Your task to perform on an android device: Show me recent news Image 0: 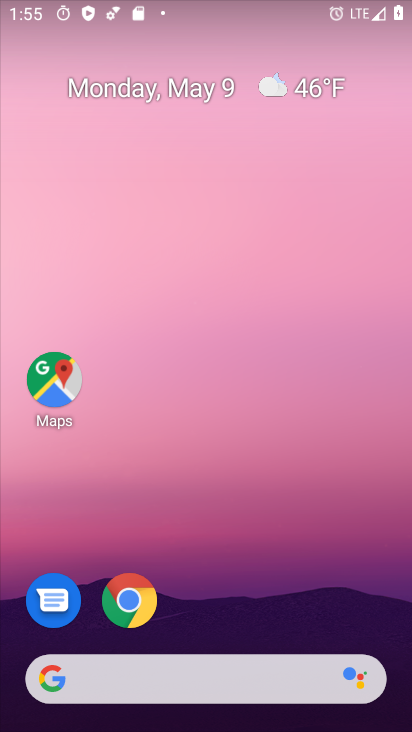
Step 0: drag from (10, 229) to (353, 254)
Your task to perform on an android device: Show me recent news Image 1: 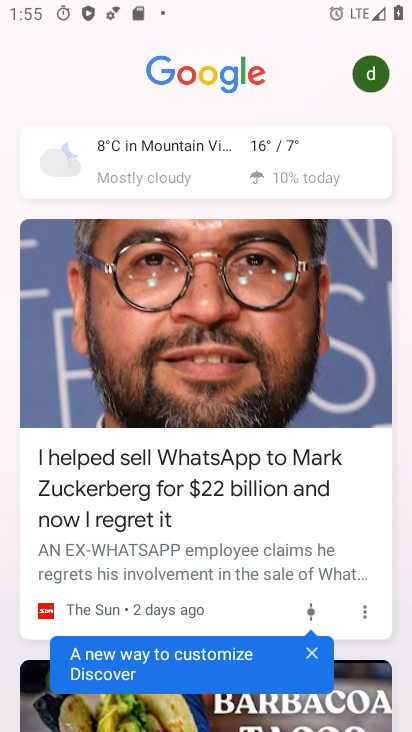
Step 1: drag from (203, 599) to (246, 150)
Your task to perform on an android device: Show me recent news Image 2: 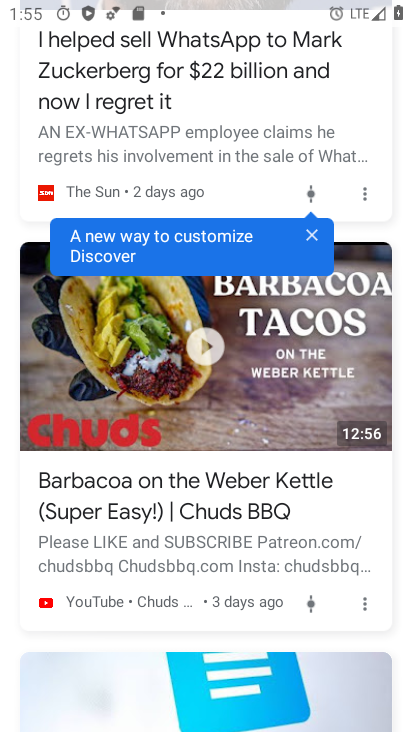
Step 2: drag from (142, 670) to (339, 55)
Your task to perform on an android device: Show me recent news Image 3: 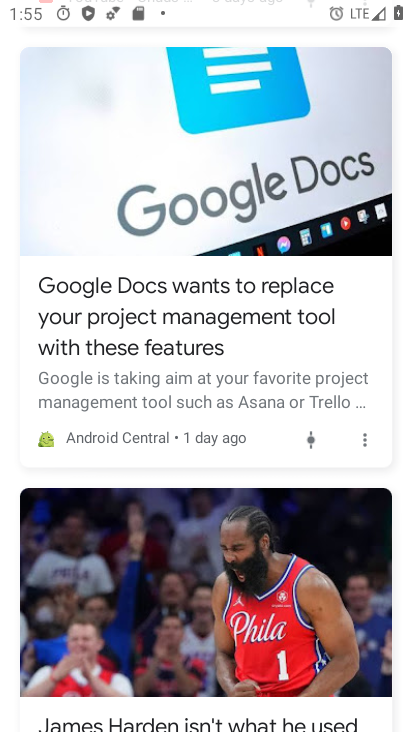
Step 3: click (283, 118)
Your task to perform on an android device: Show me recent news Image 4: 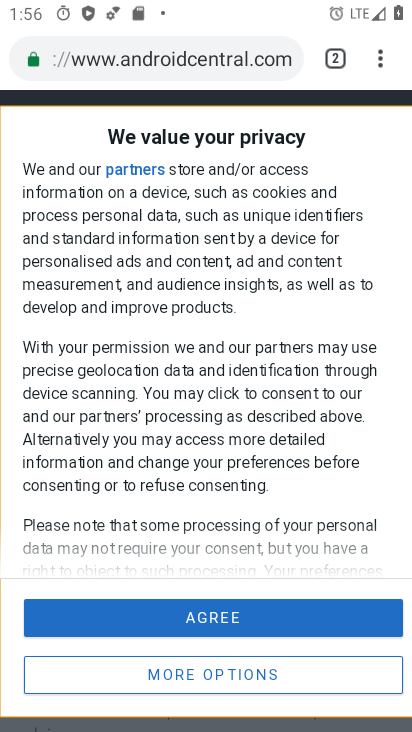
Step 4: task complete